Your task to perform on an android device: open a new tab in the chrome app Image 0: 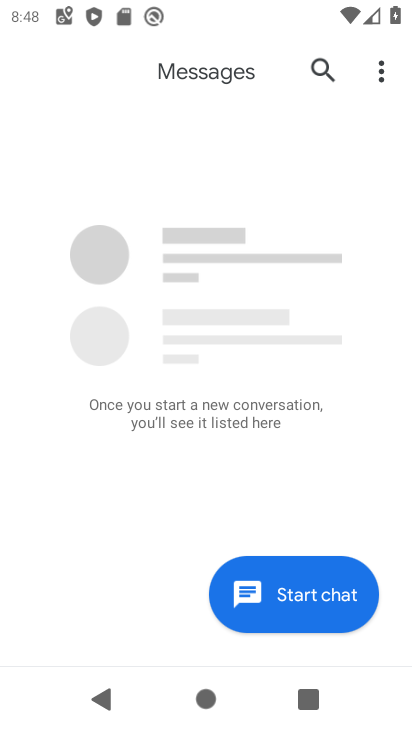
Step 0: press home button
Your task to perform on an android device: open a new tab in the chrome app Image 1: 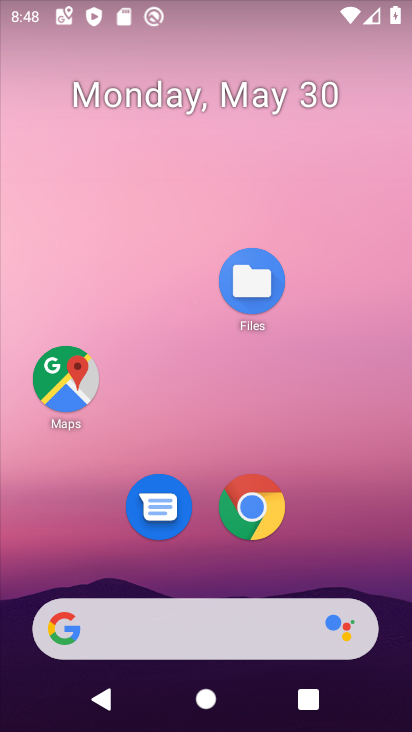
Step 1: click (224, 515)
Your task to perform on an android device: open a new tab in the chrome app Image 2: 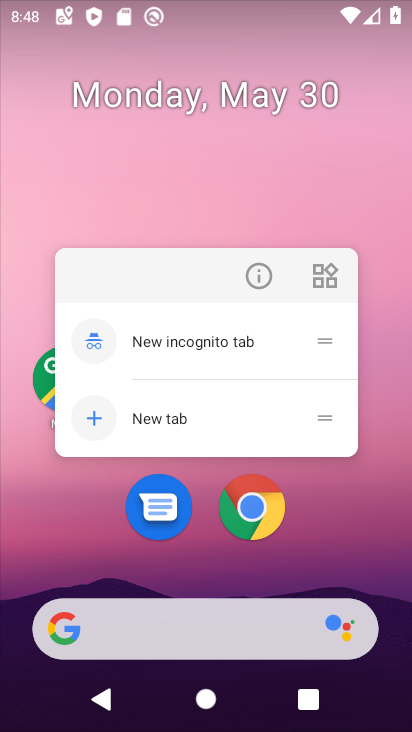
Step 2: click (243, 521)
Your task to perform on an android device: open a new tab in the chrome app Image 3: 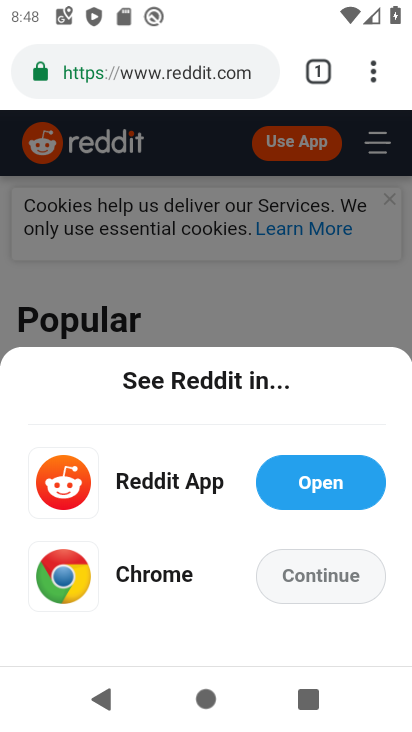
Step 3: click (377, 69)
Your task to perform on an android device: open a new tab in the chrome app Image 4: 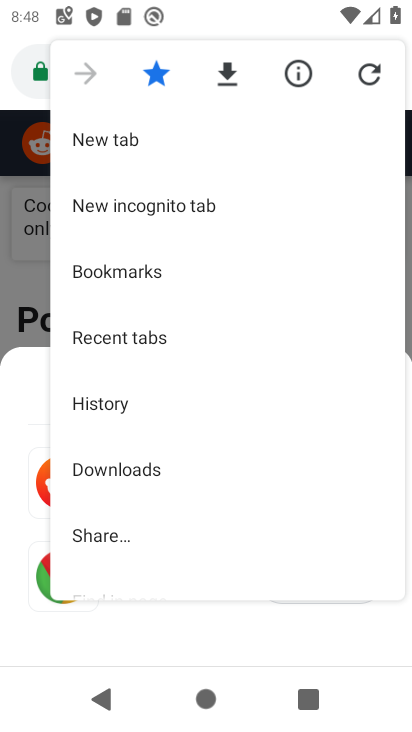
Step 4: click (138, 144)
Your task to perform on an android device: open a new tab in the chrome app Image 5: 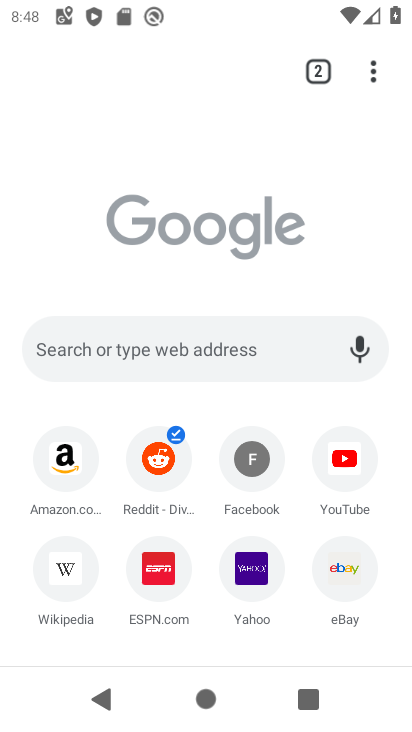
Step 5: task complete